Your task to perform on an android device: set the stopwatch Image 0: 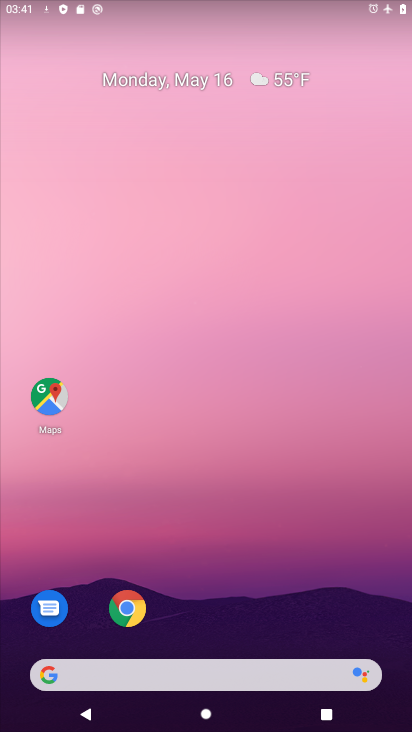
Step 0: drag from (208, 620) to (206, 304)
Your task to perform on an android device: set the stopwatch Image 1: 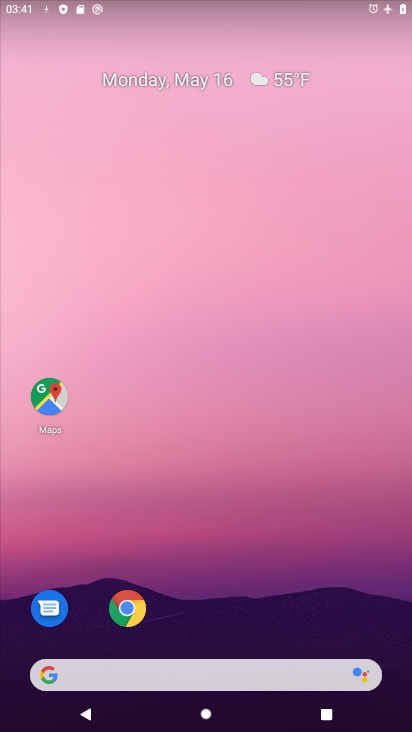
Step 1: drag from (229, 628) to (232, 212)
Your task to perform on an android device: set the stopwatch Image 2: 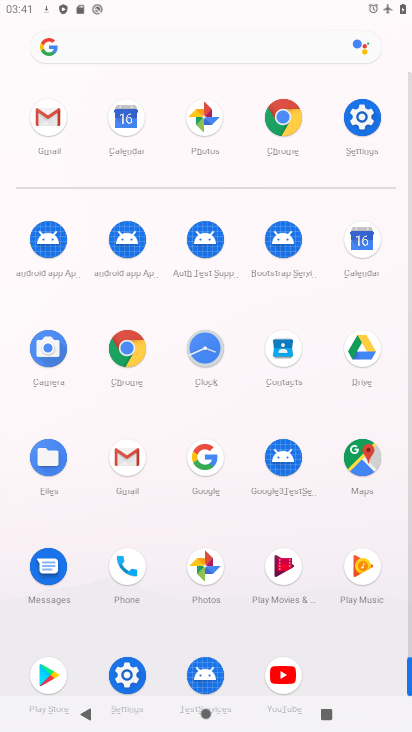
Step 2: click (203, 346)
Your task to perform on an android device: set the stopwatch Image 3: 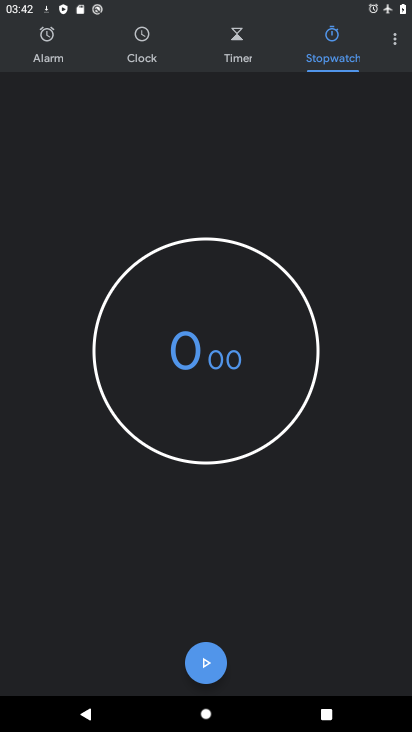
Step 3: task complete